Your task to perform on an android device: delete location history Image 0: 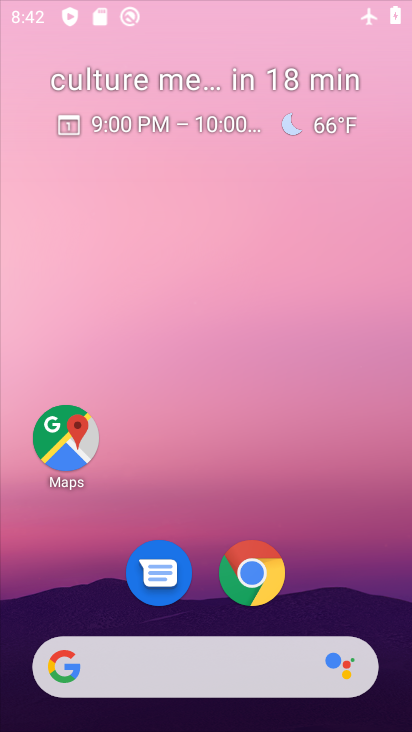
Step 0: drag from (263, 36) to (309, 28)
Your task to perform on an android device: delete location history Image 1: 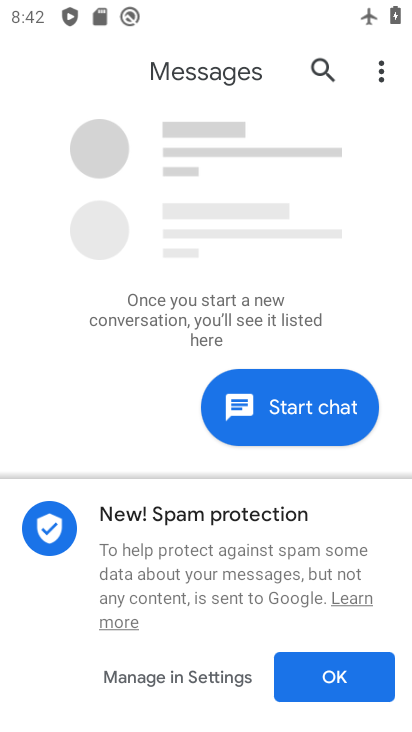
Step 1: press back button
Your task to perform on an android device: delete location history Image 2: 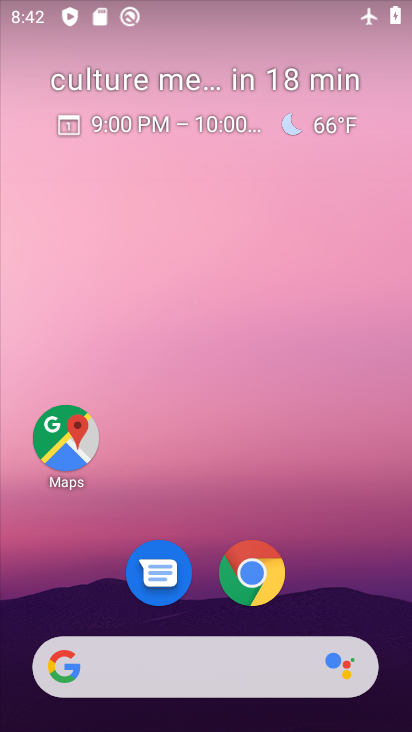
Step 2: click (51, 444)
Your task to perform on an android device: delete location history Image 3: 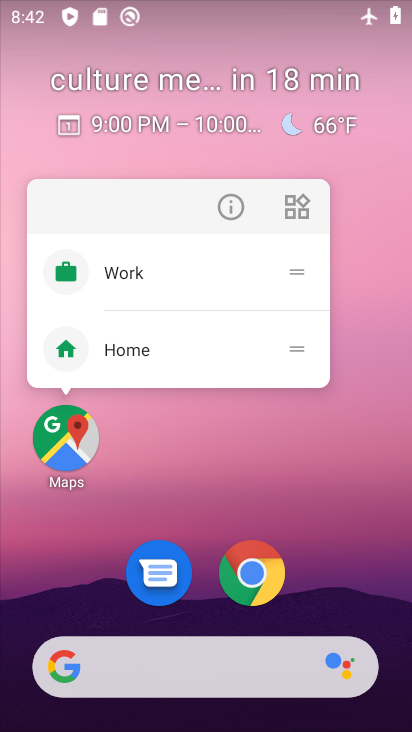
Step 3: click (51, 444)
Your task to perform on an android device: delete location history Image 4: 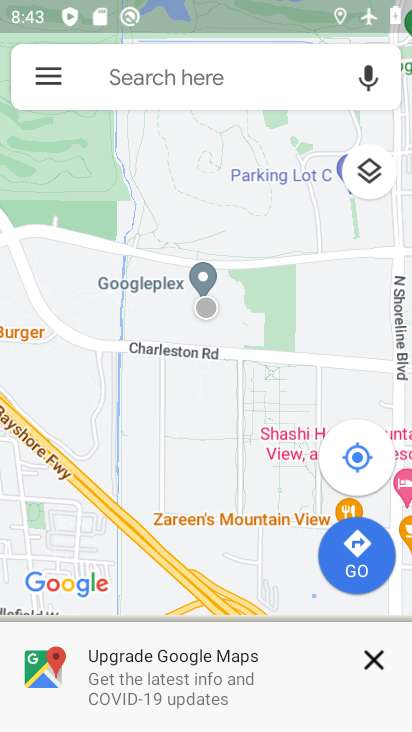
Step 4: click (43, 79)
Your task to perform on an android device: delete location history Image 5: 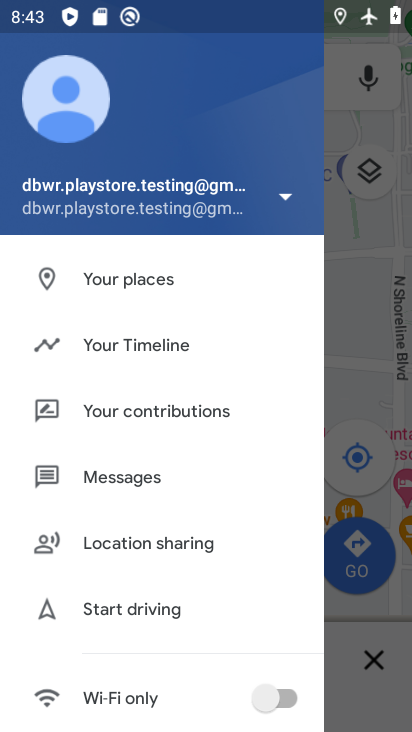
Step 5: click (201, 358)
Your task to perform on an android device: delete location history Image 6: 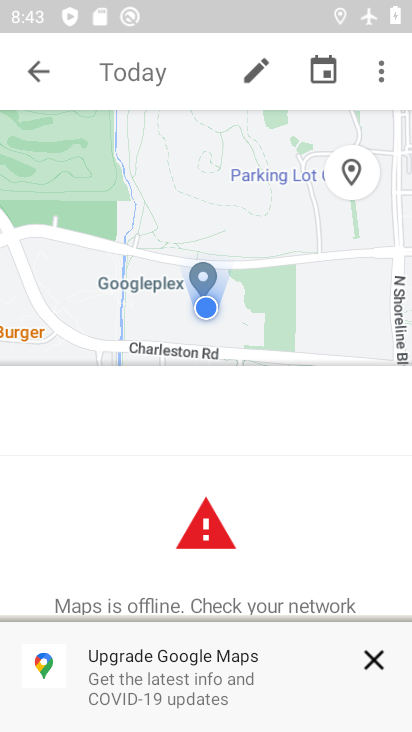
Step 6: click (376, 658)
Your task to perform on an android device: delete location history Image 7: 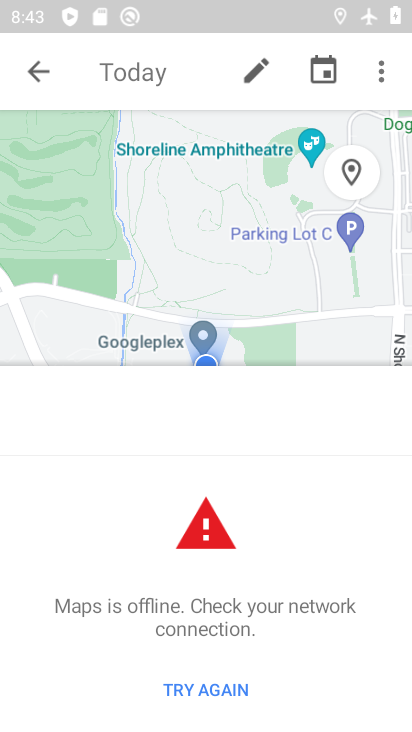
Step 7: click (234, 685)
Your task to perform on an android device: delete location history Image 8: 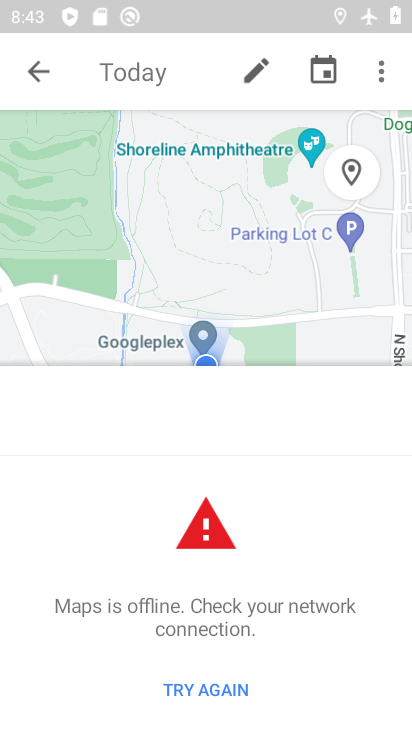
Step 8: drag from (293, 130) to (262, 502)
Your task to perform on an android device: delete location history Image 9: 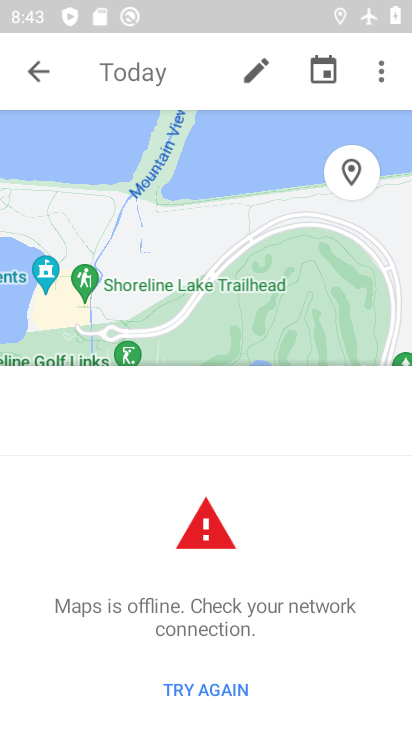
Step 9: drag from (318, 163) to (232, 484)
Your task to perform on an android device: delete location history Image 10: 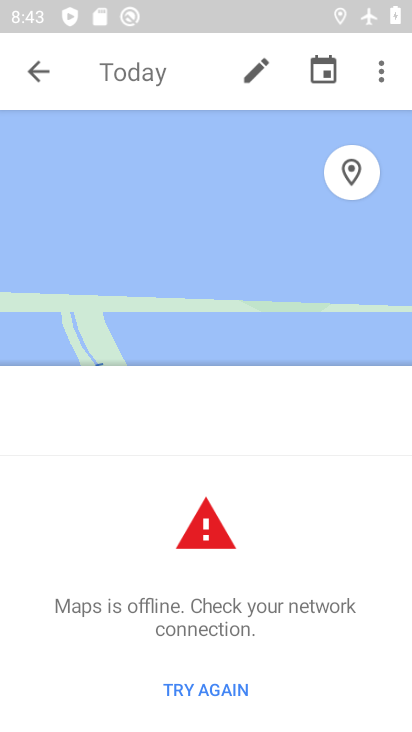
Step 10: drag from (239, 8) to (187, 464)
Your task to perform on an android device: delete location history Image 11: 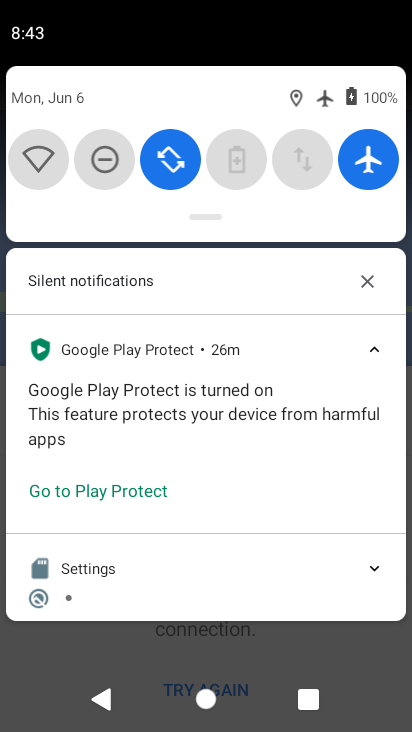
Step 11: click (352, 146)
Your task to perform on an android device: delete location history Image 12: 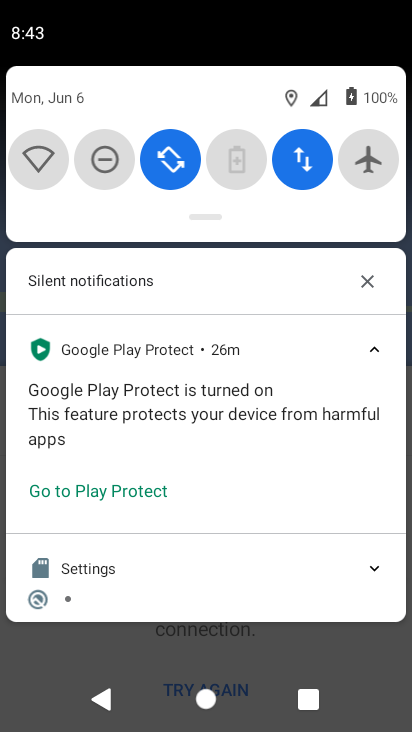
Step 12: drag from (165, 638) to (224, 169)
Your task to perform on an android device: delete location history Image 13: 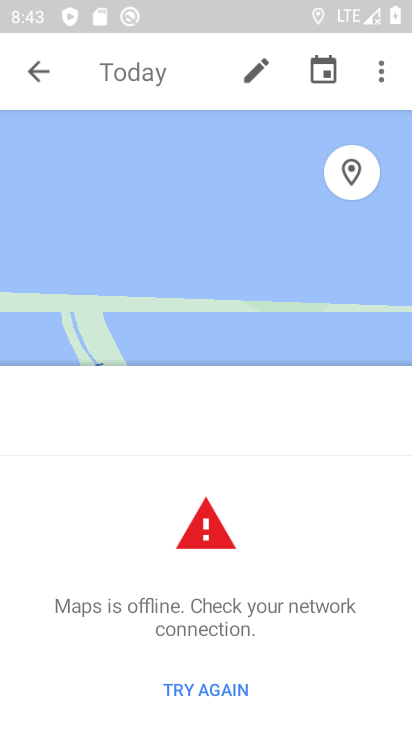
Step 13: click (373, 65)
Your task to perform on an android device: delete location history Image 14: 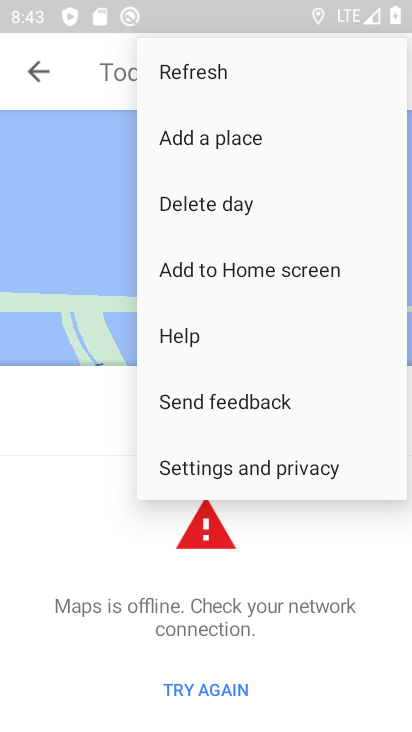
Step 14: click (233, 451)
Your task to perform on an android device: delete location history Image 15: 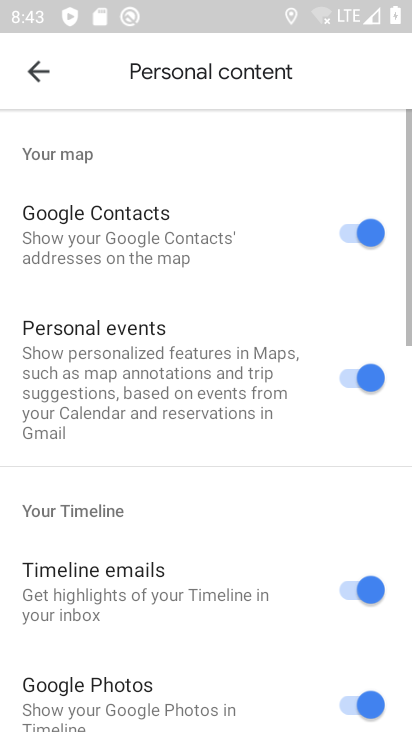
Step 15: drag from (172, 630) to (266, 123)
Your task to perform on an android device: delete location history Image 16: 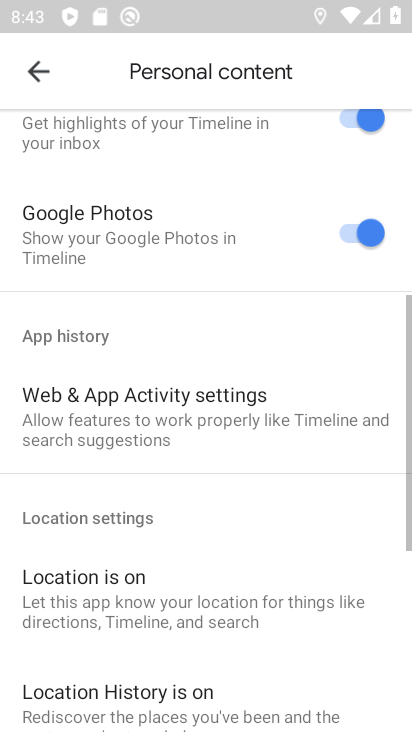
Step 16: drag from (152, 662) to (256, 194)
Your task to perform on an android device: delete location history Image 17: 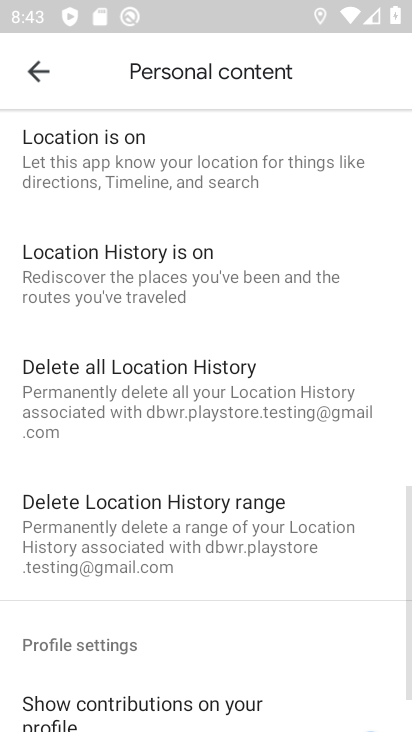
Step 17: click (124, 401)
Your task to perform on an android device: delete location history Image 18: 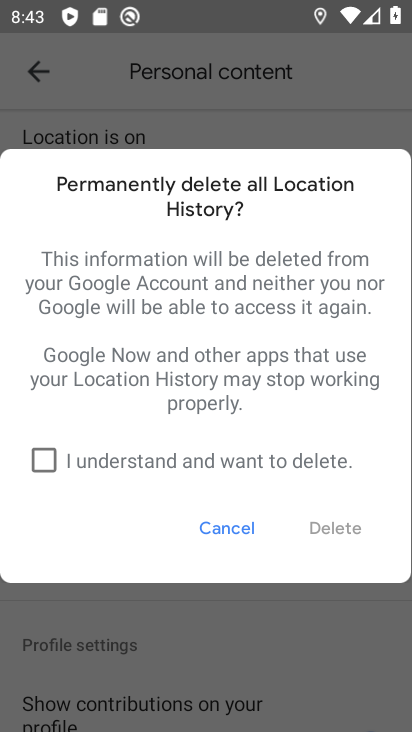
Step 18: click (41, 471)
Your task to perform on an android device: delete location history Image 19: 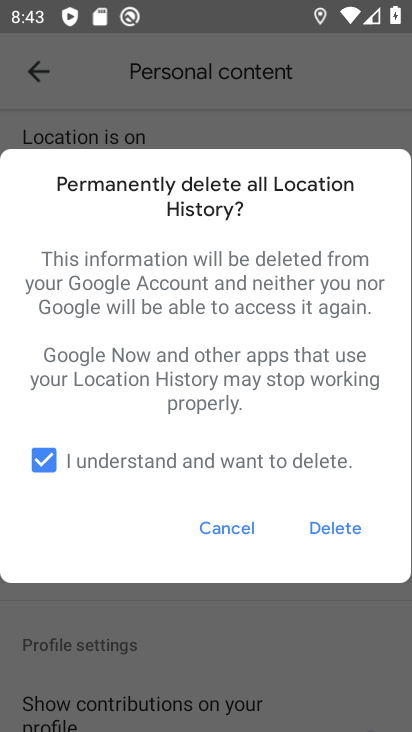
Step 19: click (350, 532)
Your task to perform on an android device: delete location history Image 20: 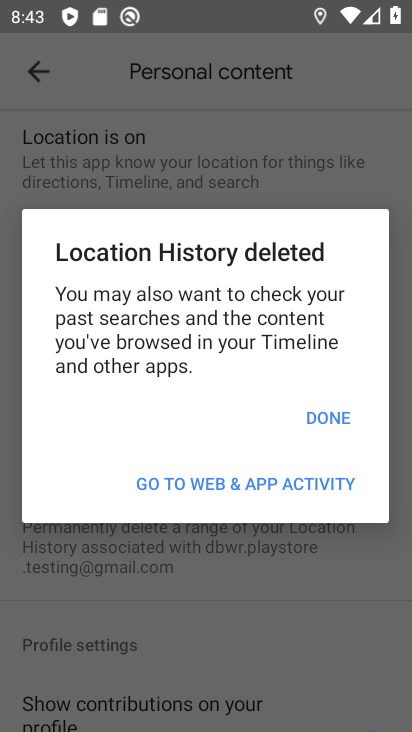
Step 20: click (336, 407)
Your task to perform on an android device: delete location history Image 21: 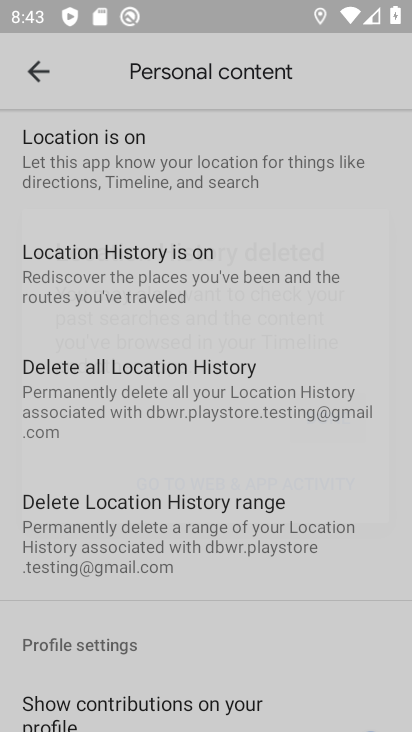
Step 21: task complete